Your task to perform on an android device: turn on translation in the chrome app Image 0: 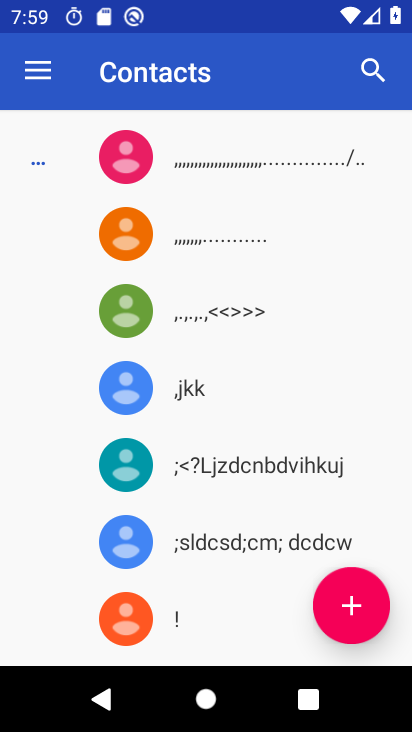
Step 0: press home button
Your task to perform on an android device: turn on translation in the chrome app Image 1: 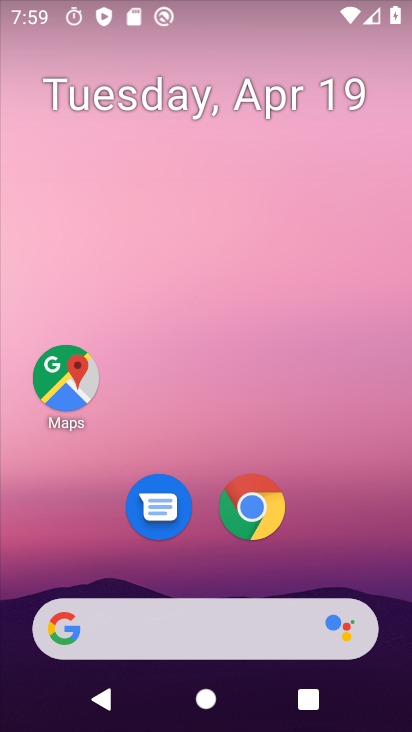
Step 1: click (270, 515)
Your task to perform on an android device: turn on translation in the chrome app Image 2: 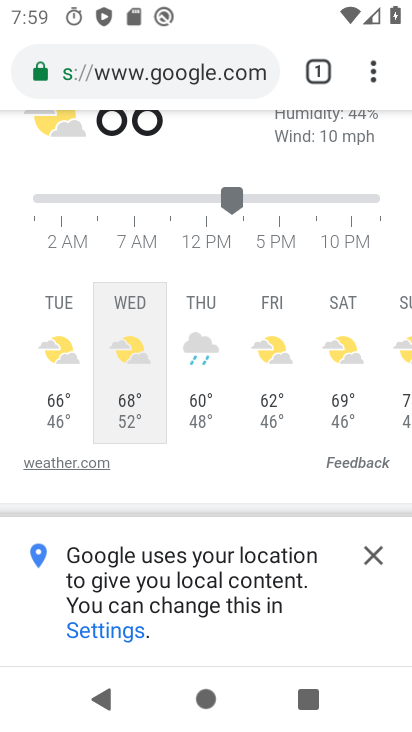
Step 2: click (371, 70)
Your task to perform on an android device: turn on translation in the chrome app Image 3: 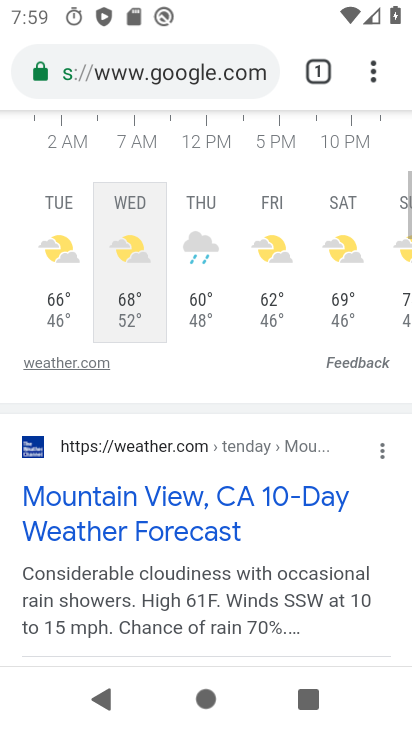
Step 3: click (371, 70)
Your task to perform on an android device: turn on translation in the chrome app Image 4: 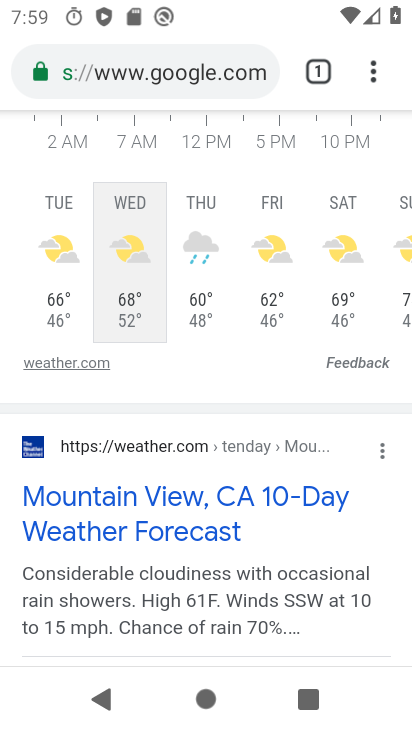
Step 4: click (374, 75)
Your task to perform on an android device: turn on translation in the chrome app Image 5: 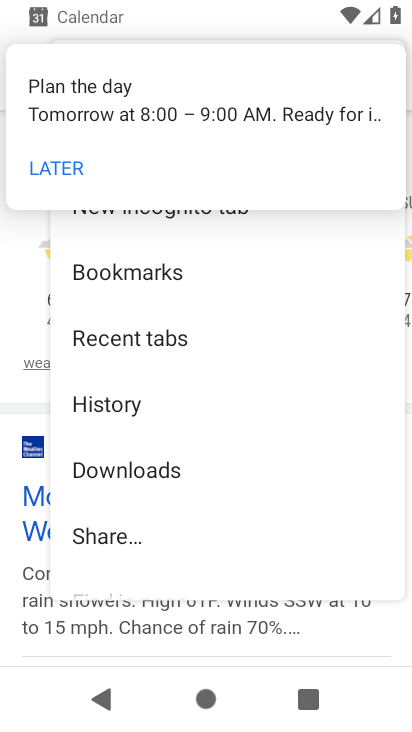
Step 5: drag from (245, 567) to (244, 268)
Your task to perform on an android device: turn on translation in the chrome app Image 6: 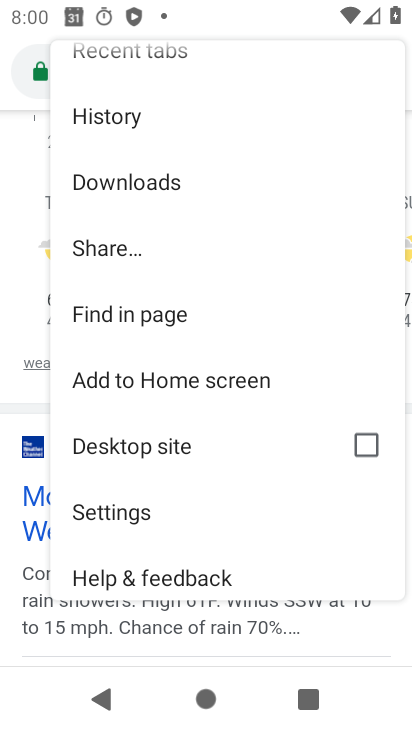
Step 6: click (115, 505)
Your task to perform on an android device: turn on translation in the chrome app Image 7: 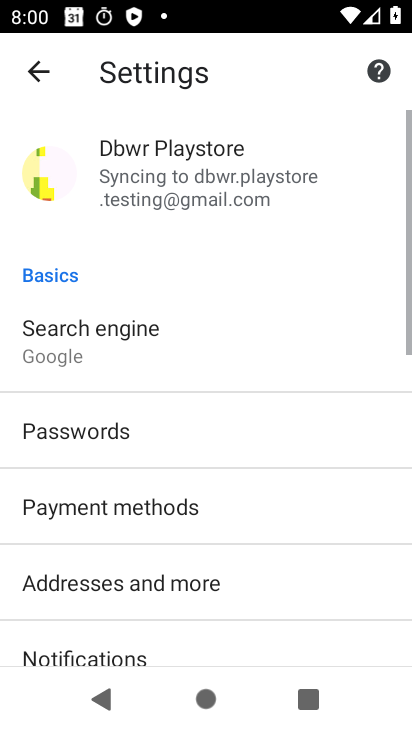
Step 7: drag from (130, 584) to (109, 189)
Your task to perform on an android device: turn on translation in the chrome app Image 8: 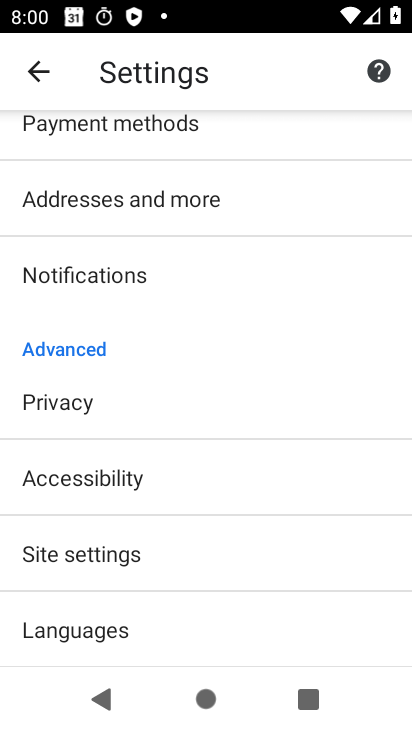
Step 8: click (106, 633)
Your task to perform on an android device: turn on translation in the chrome app Image 9: 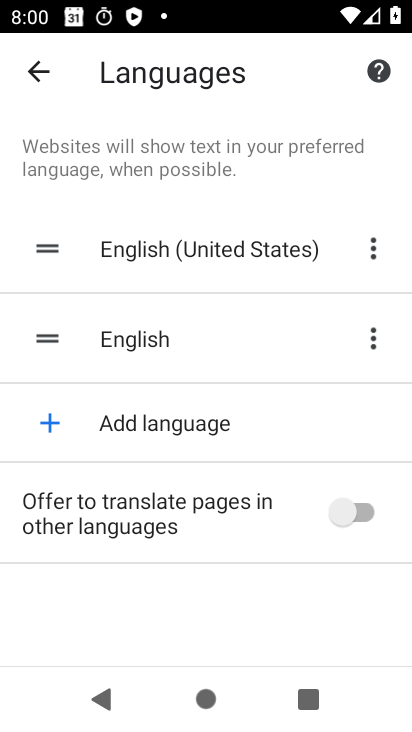
Step 9: click (350, 505)
Your task to perform on an android device: turn on translation in the chrome app Image 10: 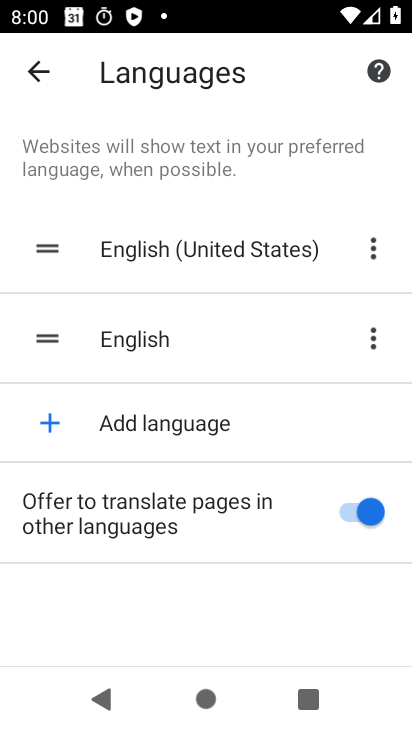
Step 10: task complete